Your task to perform on an android device: Open the settings Image 0: 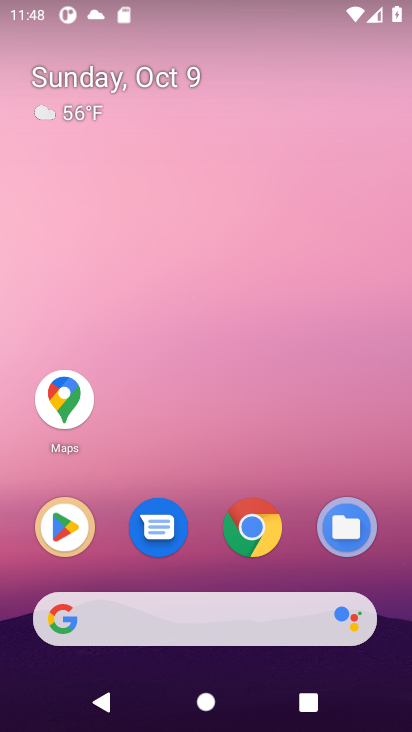
Step 0: drag from (303, 550) to (334, 2)
Your task to perform on an android device: Open the settings Image 1: 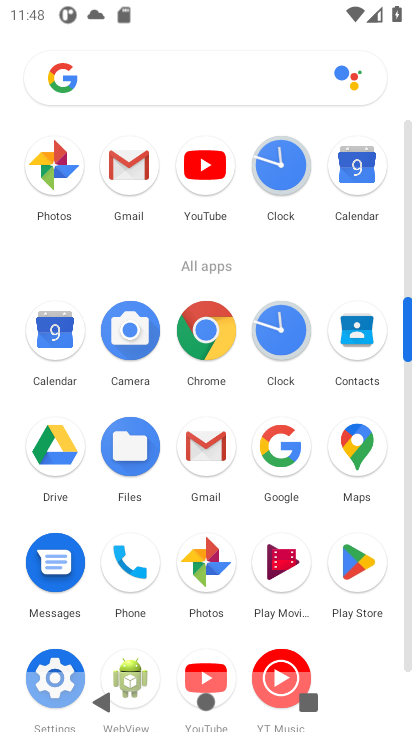
Step 1: drag from (104, 637) to (117, 497)
Your task to perform on an android device: Open the settings Image 2: 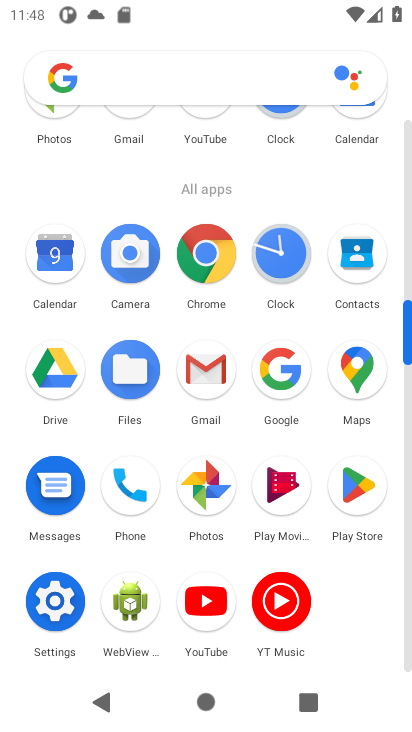
Step 2: click (59, 596)
Your task to perform on an android device: Open the settings Image 3: 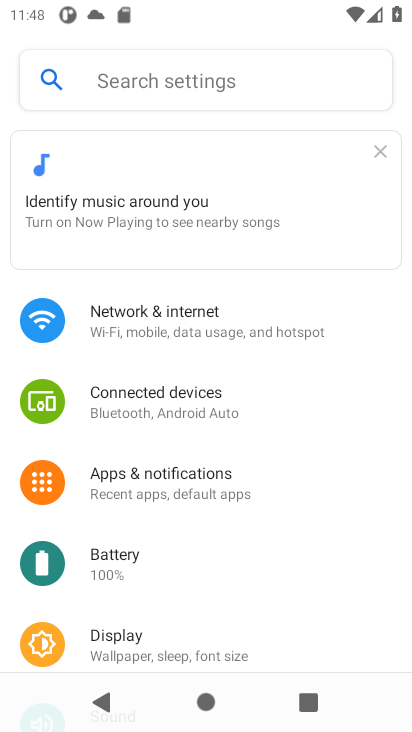
Step 3: task complete